Your task to perform on an android device: Do I have any events this weekend? Image 0: 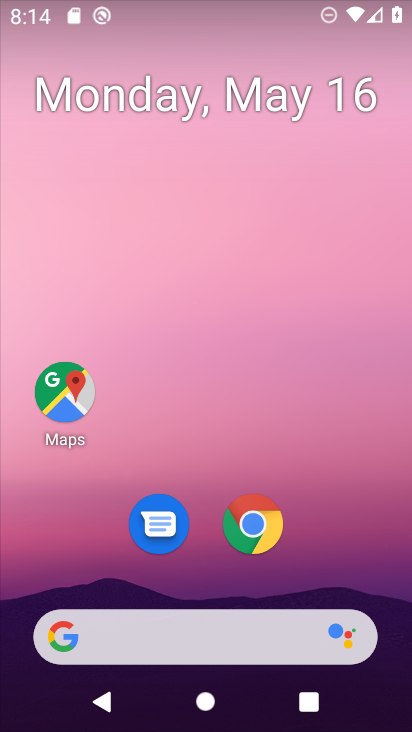
Step 0: drag from (292, 552) to (320, 69)
Your task to perform on an android device: Do I have any events this weekend? Image 1: 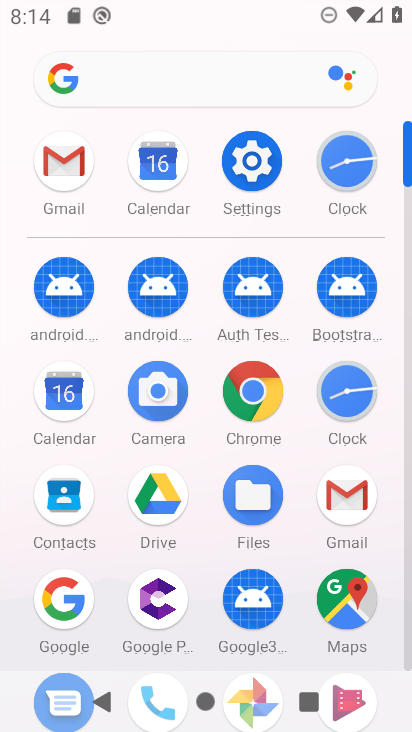
Step 1: click (167, 163)
Your task to perform on an android device: Do I have any events this weekend? Image 2: 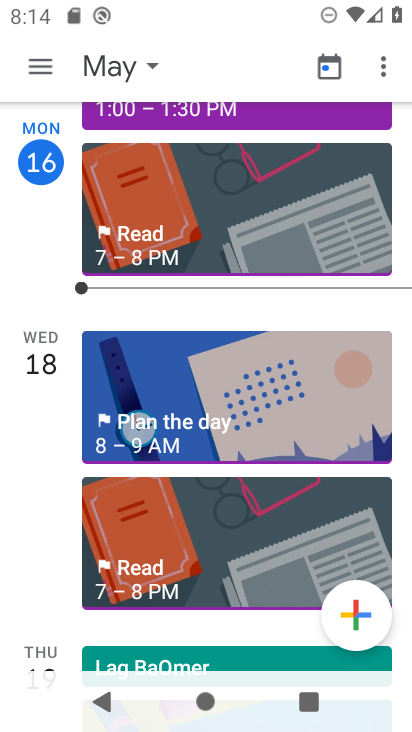
Step 2: click (41, 62)
Your task to perform on an android device: Do I have any events this weekend? Image 3: 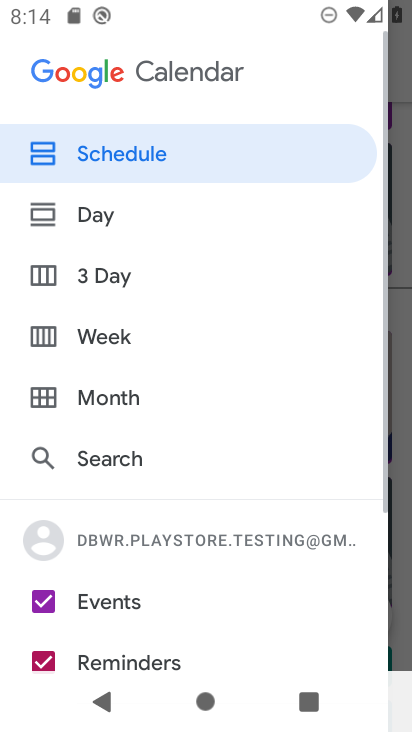
Step 3: click (78, 325)
Your task to perform on an android device: Do I have any events this weekend? Image 4: 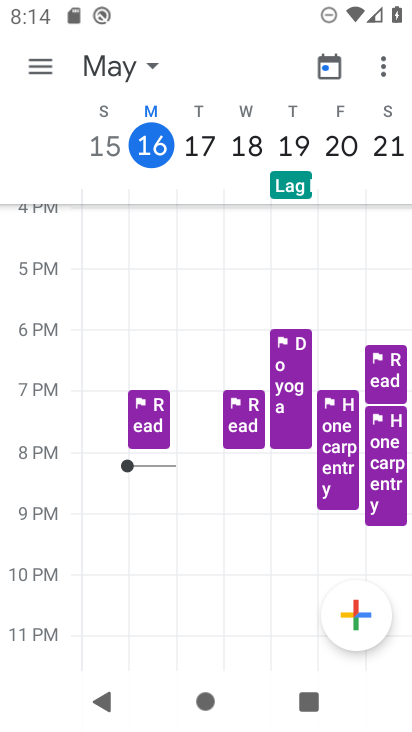
Step 4: click (387, 132)
Your task to perform on an android device: Do I have any events this weekend? Image 5: 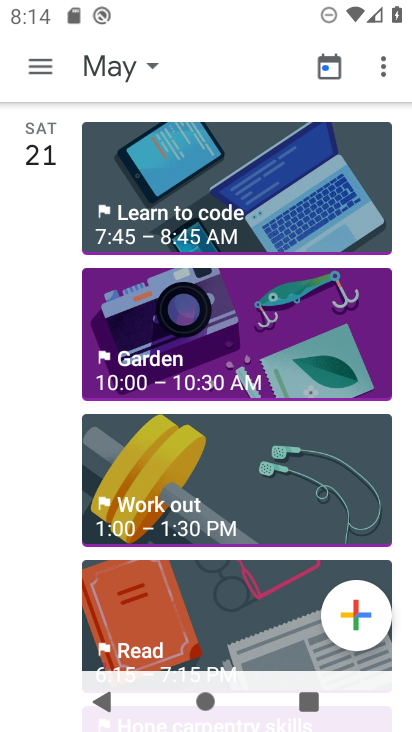
Step 5: task complete